Your task to perform on an android device: Turn on the flashlight Image 0: 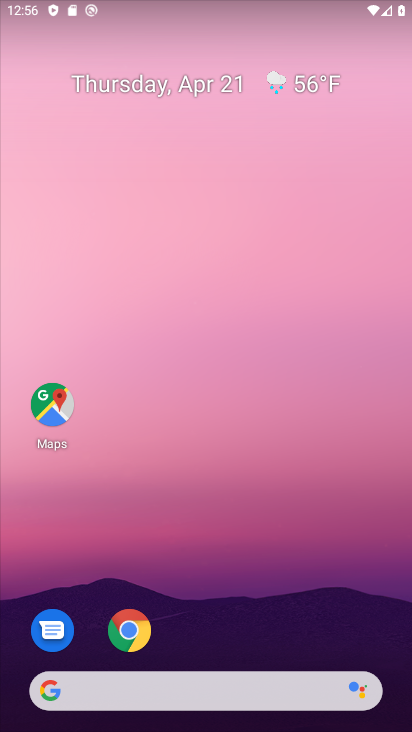
Step 0: drag from (231, 648) to (288, 99)
Your task to perform on an android device: Turn on the flashlight Image 1: 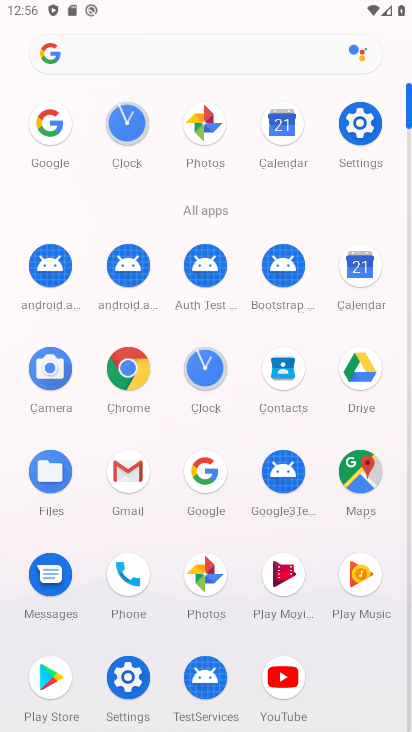
Step 1: task complete